Your task to perform on an android device: Go to eBay Image 0: 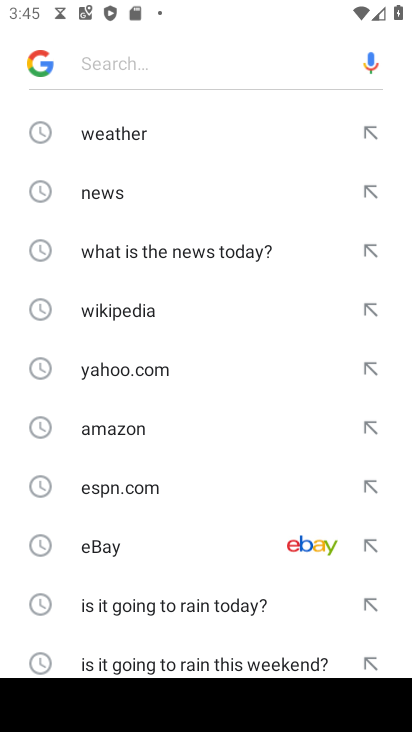
Step 0: click (132, 70)
Your task to perform on an android device: Go to eBay Image 1: 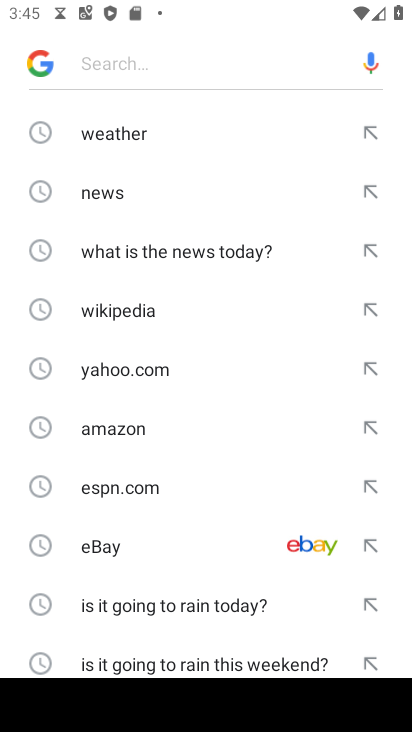
Step 1: type "eBay"
Your task to perform on an android device: Go to eBay Image 2: 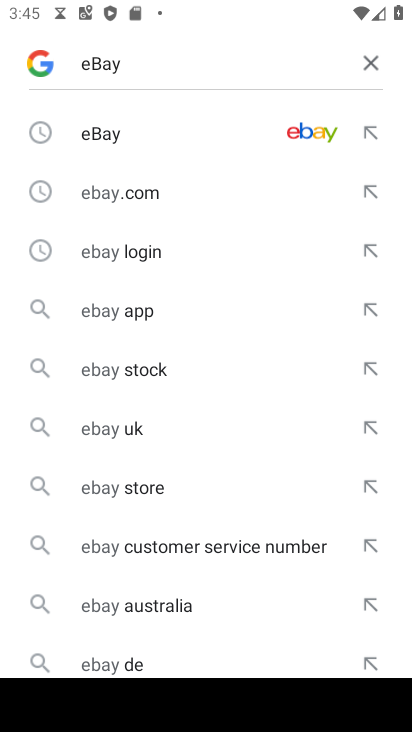
Step 2: click (184, 127)
Your task to perform on an android device: Go to eBay Image 3: 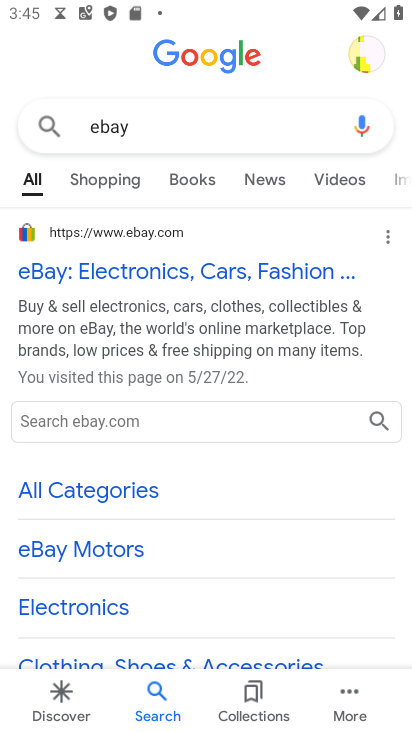
Step 3: click (164, 274)
Your task to perform on an android device: Go to eBay Image 4: 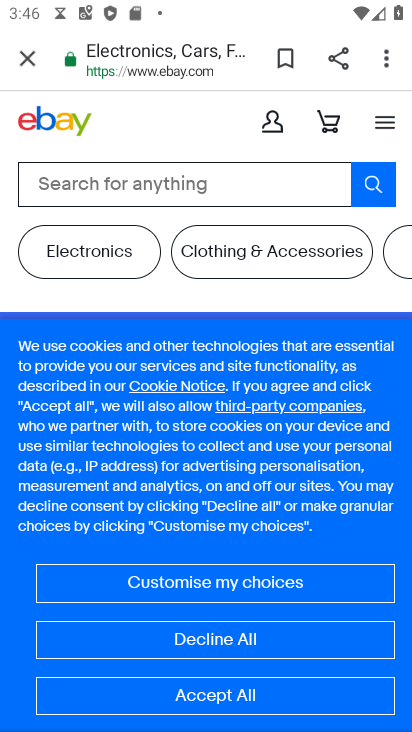
Step 4: task complete